Your task to perform on an android device: Open network settings Image 0: 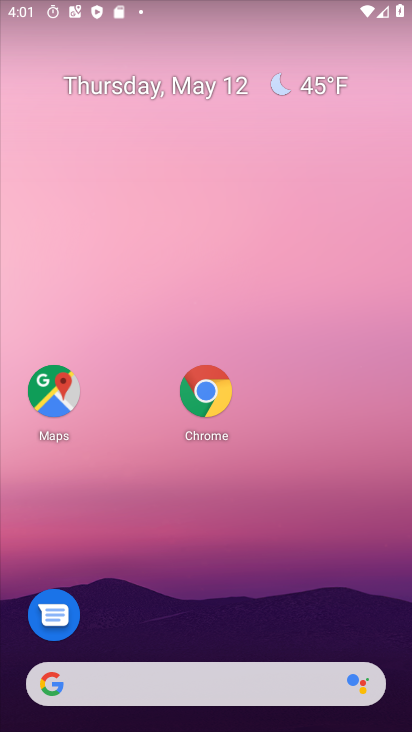
Step 0: drag from (208, 600) to (210, 108)
Your task to perform on an android device: Open network settings Image 1: 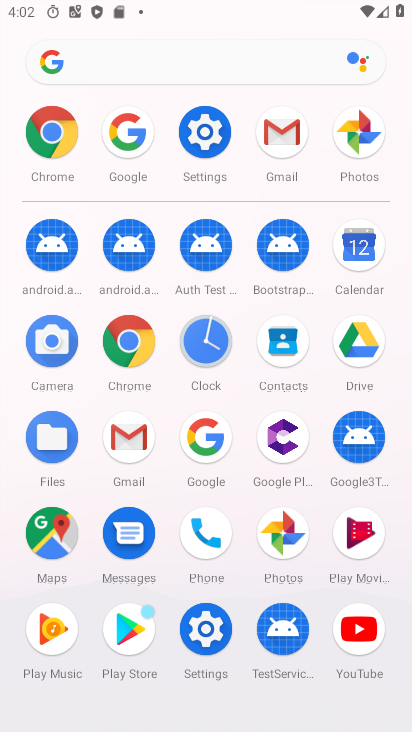
Step 1: click (203, 130)
Your task to perform on an android device: Open network settings Image 2: 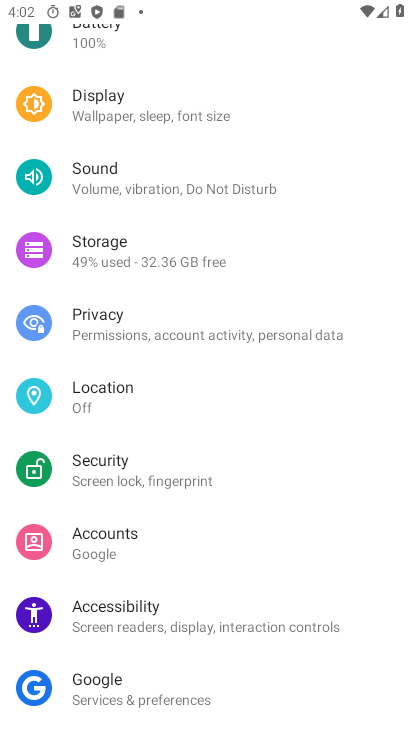
Step 2: drag from (201, 140) to (176, 710)
Your task to perform on an android device: Open network settings Image 3: 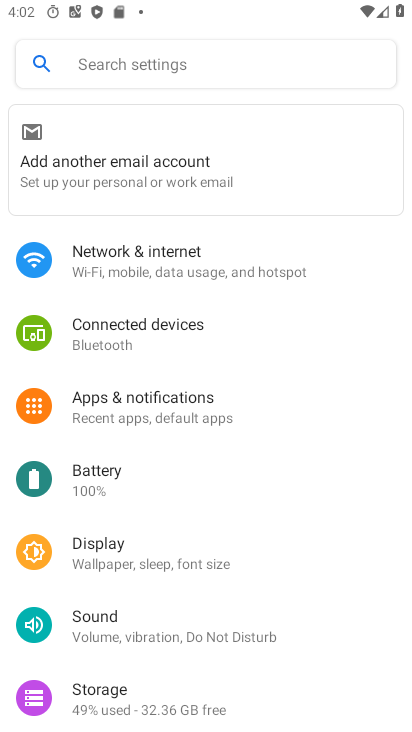
Step 3: click (192, 256)
Your task to perform on an android device: Open network settings Image 4: 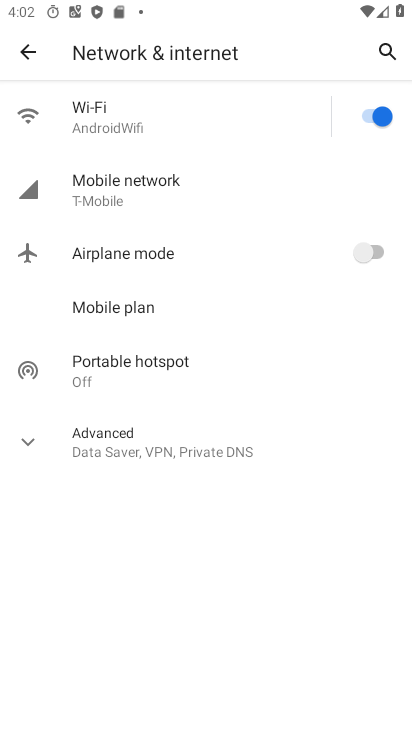
Step 4: click (96, 189)
Your task to perform on an android device: Open network settings Image 5: 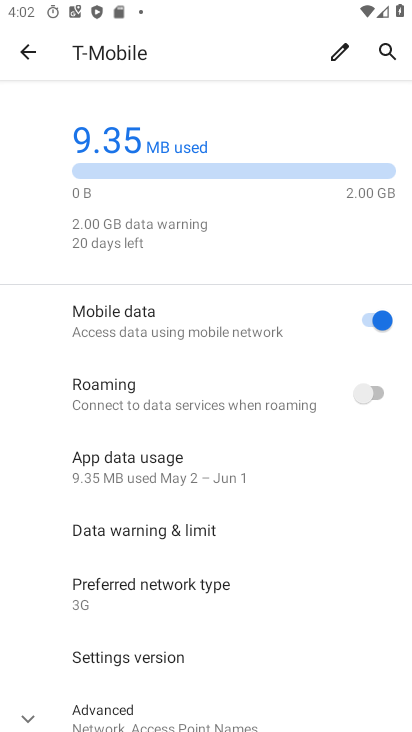
Step 5: task complete